Your task to perform on an android device: Open the calendar app, open the side menu, and click the "Day" option Image 0: 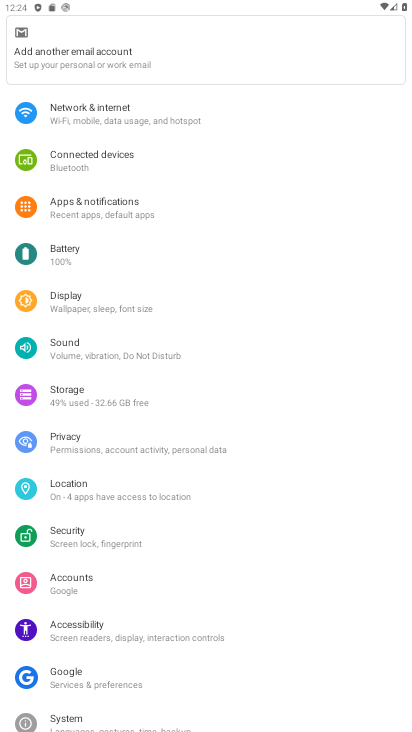
Step 0: press home button
Your task to perform on an android device: Open the calendar app, open the side menu, and click the "Day" option Image 1: 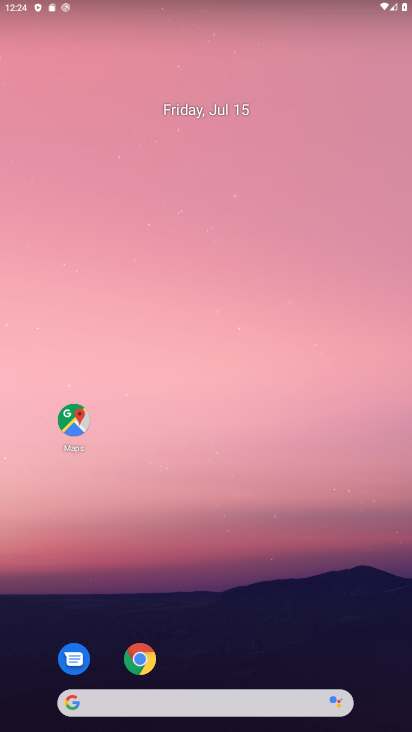
Step 1: drag from (199, 574) to (233, 194)
Your task to perform on an android device: Open the calendar app, open the side menu, and click the "Day" option Image 2: 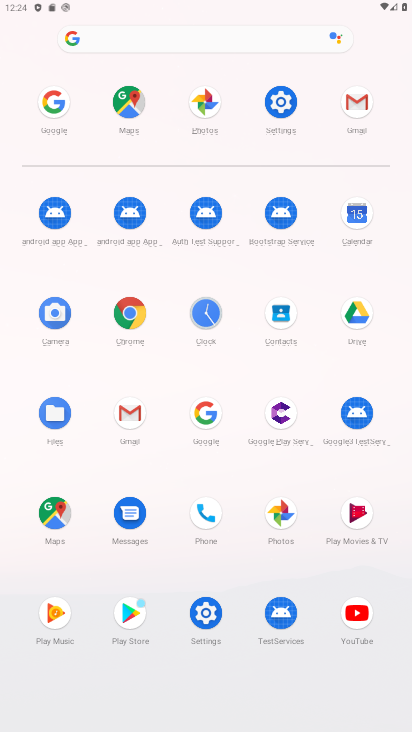
Step 2: click (352, 234)
Your task to perform on an android device: Open the calendar app, open the side menu, and click the "Day" option Image 3: 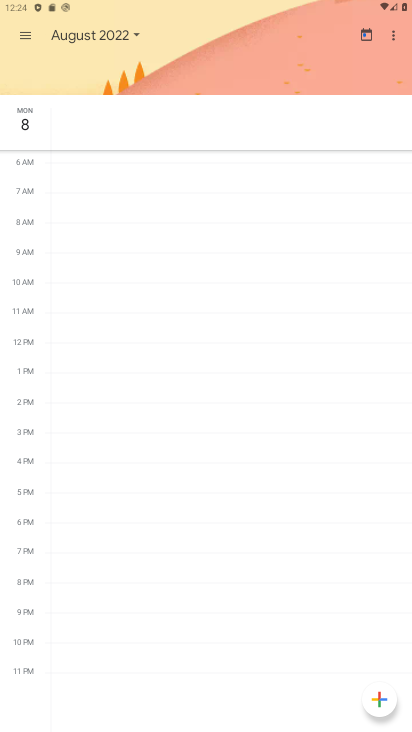
Step 3: click (35, 35)
Your task to perform on an android device: Open the calendar app, open the side menu, and click the "Day" option Image 4: 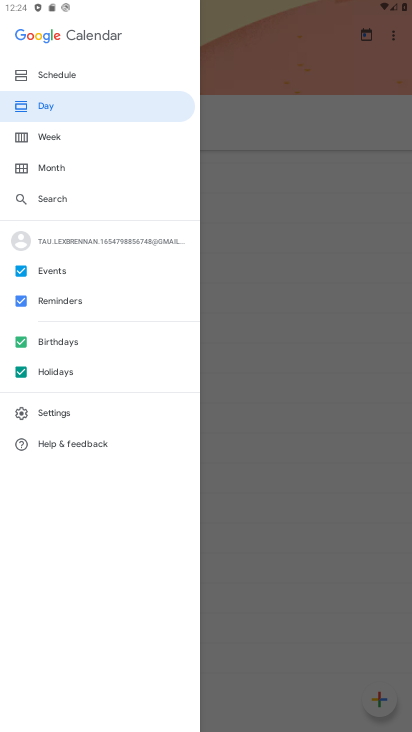
Step 4: click (271, 203)
Your task to perform on an android device: Open the calendar app, open the side menu, and click the "Day" option Image 5: 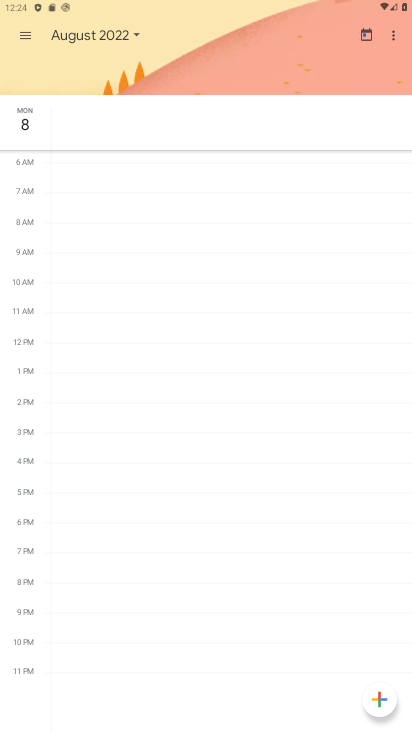
Step 5: task complete